Your task to perform on an android device: Go to battery settings Image 0: 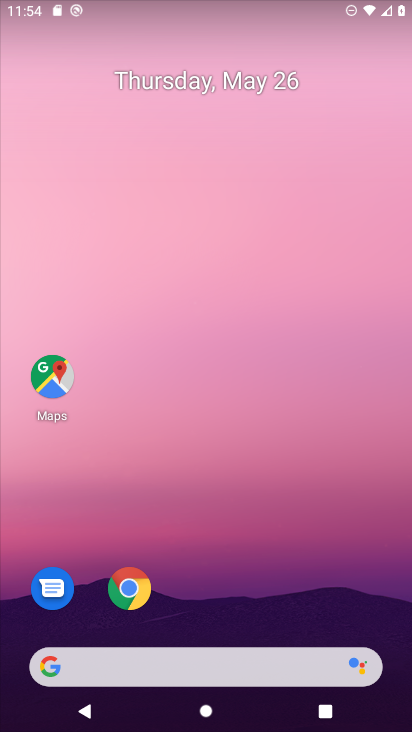
Step 0: drag from (387, 623) to (337, 55)
Your task to perform on an android device: Go to battery settings Image 1: 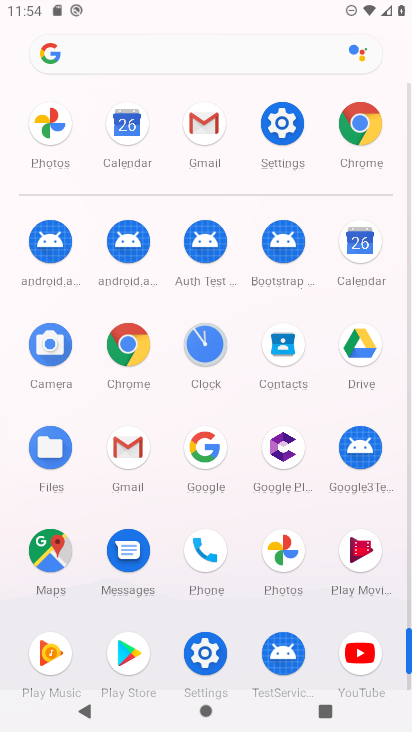
Step 1: click (207, 655)
Your task to perform on an android device: Go to battery settings Image 2: 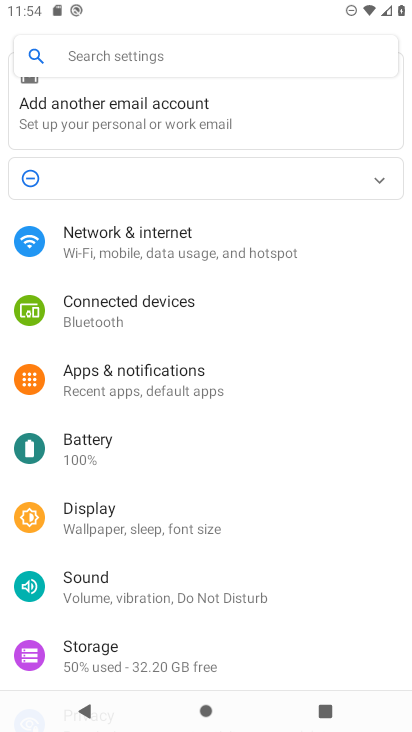
Step 2: click (99, 444)
Your task to perform on an android device: Go to battery settings Image 3: 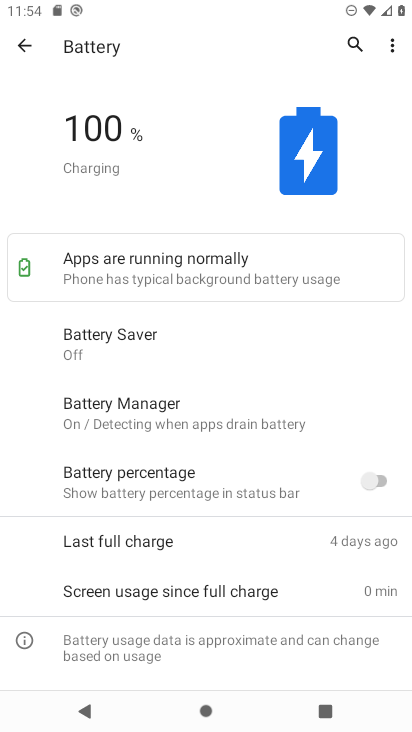
Step 3: drag from (226, 603) to (225, 208)
Your task to perform on an android device: Go to battery settings Image 4: 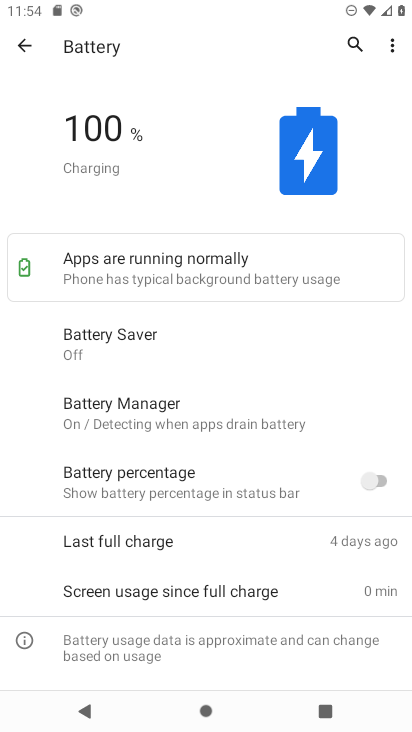
Step 4: click (392, 48)
Your task to perform on an android device: Go to battery settings Image 5: 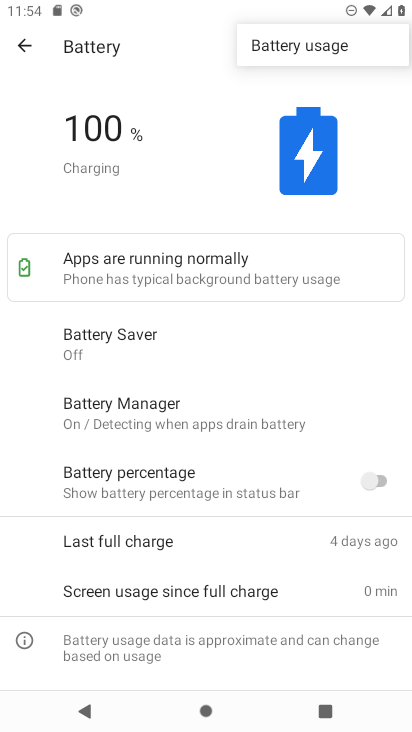
Step 5: task complete